Your task to perform on an android device: Open Google Maps and go to "Timeline" Image 0: 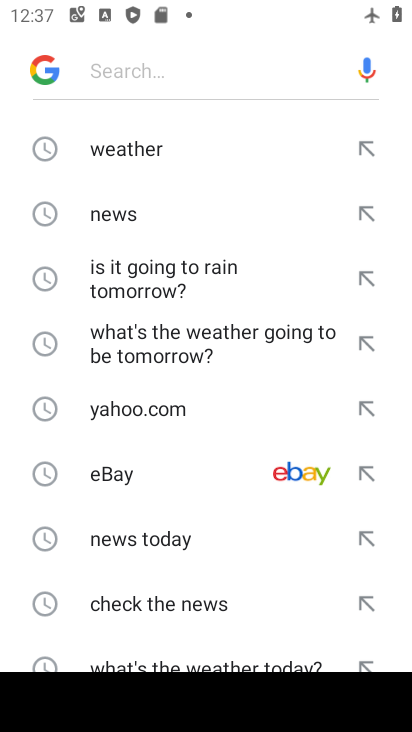
Step 0: press home button
Your task to perform on an android device: Open Google Maps and go to "Timeline" Image 1: 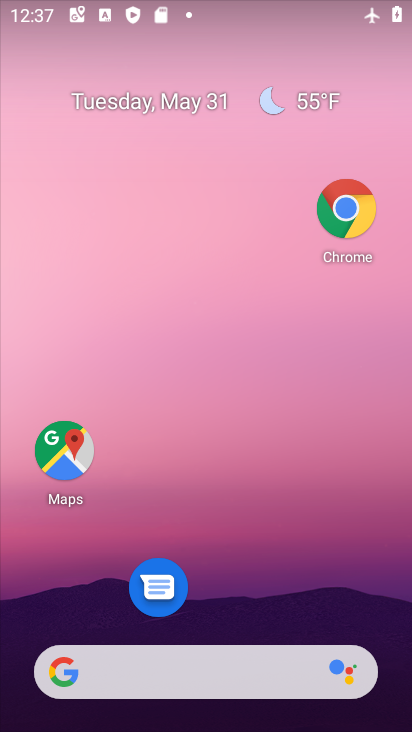
Step 1: click (65, 466)
Your task to perform on an android device: Open Google Maps and go to "Timeline" Image 2: 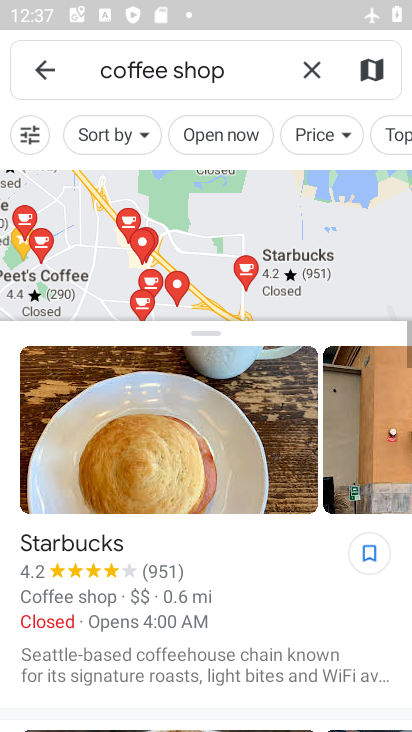
Step 2: click (32, 77)
Your task to perform on an android device: Open Google Maps and go to "Timeline" Image 3: 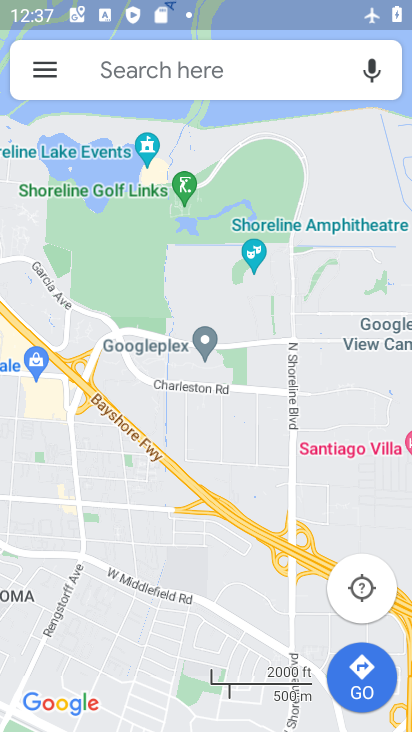
Step 3: click (32, 77)
Your task to perform on an android device: Open Google Maps and go to "Timeline" Image 4: 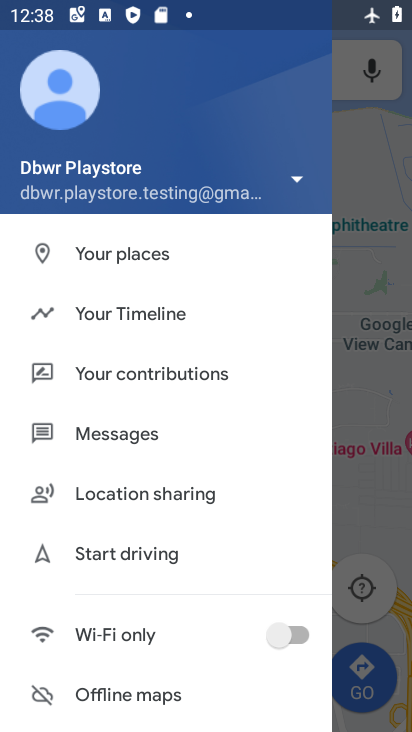
Step 4: click (99, 320)
Your task to perform on an android device: Open Google Maps and go to "Timeline" Image 5: 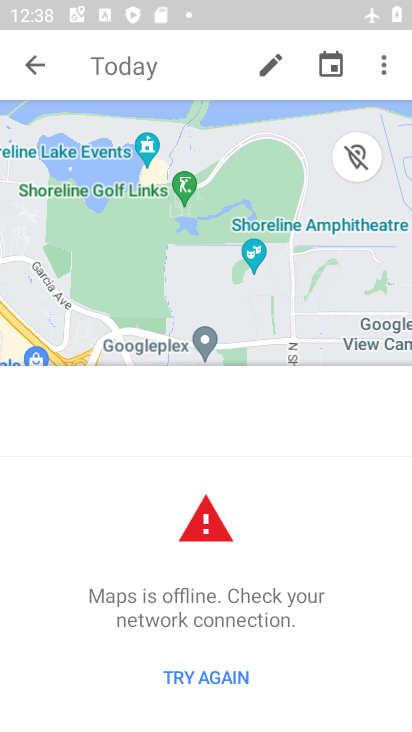
Step 5: drag from (306, 269) to (315, 570)
Your task to perform on an android device: Open Google Maps and go to "Timeline" Image 6: 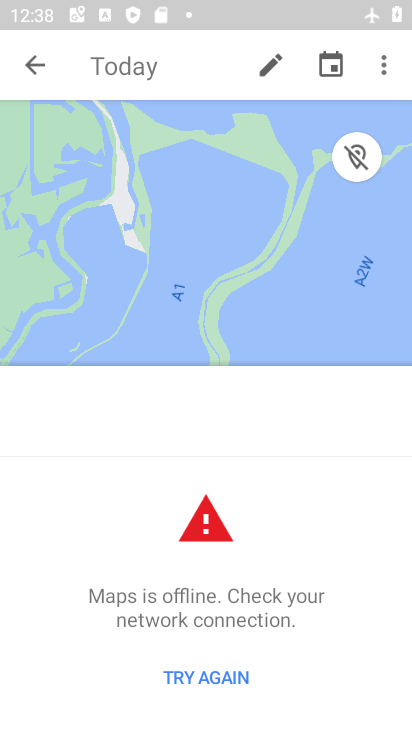
Step 6: drag from (204, 166) to (203, 604)
Your task to perform on an android device: Open Google Maps and go to "Timeline" Image 7: 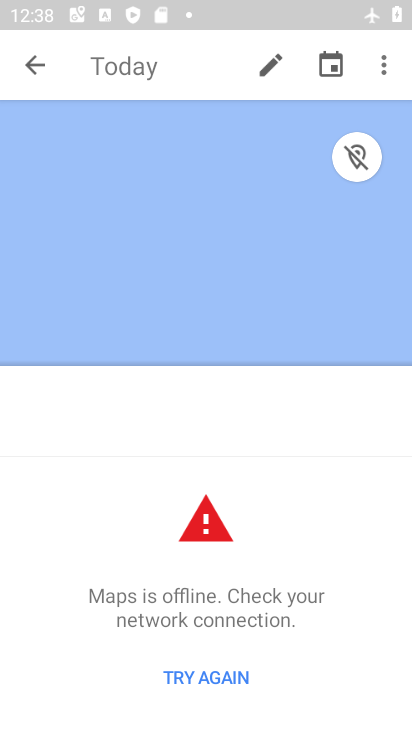
Step 7: drag from (207, 12) to (251, 617)
Your task to perform on an android device: Open Google Maps and go to "Timeline" Image 8: 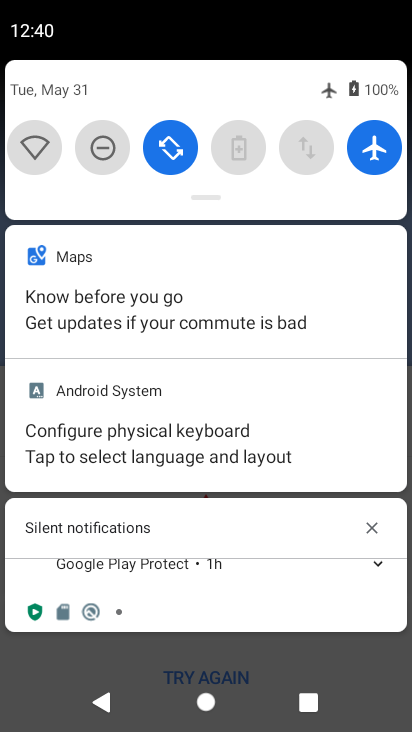
Step 8: press home button
Your task to perform on an android device: Open Google Maps and go to "Timeline" Image 9: 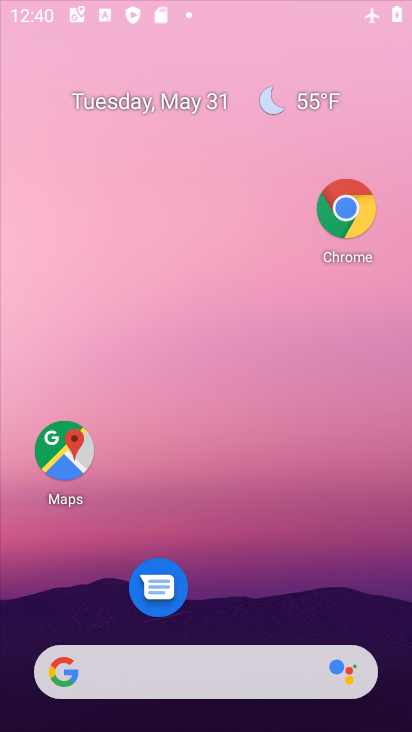
Step 9: press home button
Your task to perform on an android device: Open Google Maps and go to "Timeline" Image 10: 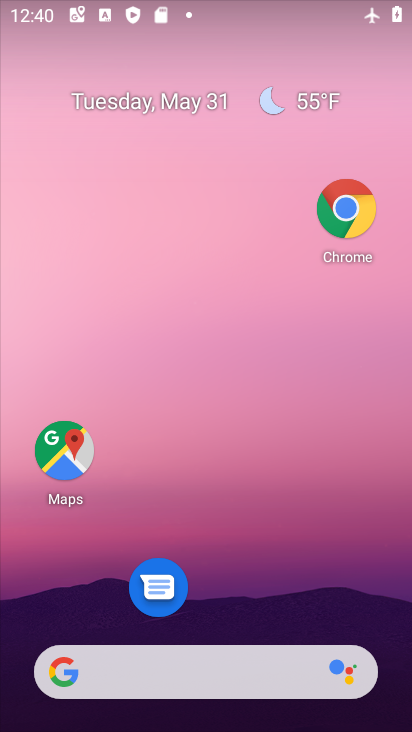
Step 10: press home button
Your task to perform on an android device: Open Google Maps and go to "Timeline" Image 11: 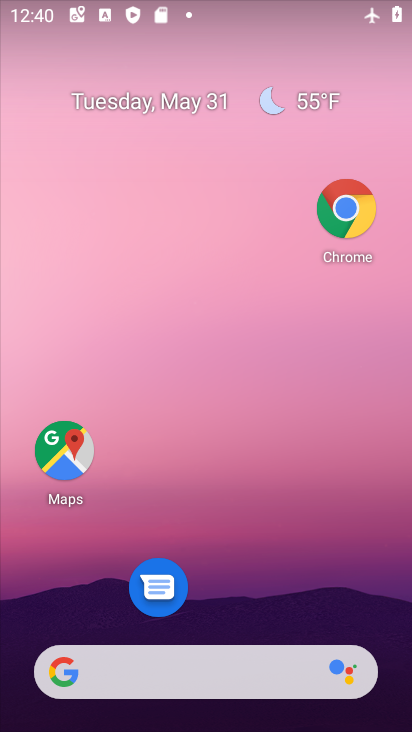
Step 11: click (72, 471)
Your task to perform on an android device: Open Google Maps and go to "Timeline" Image 12: 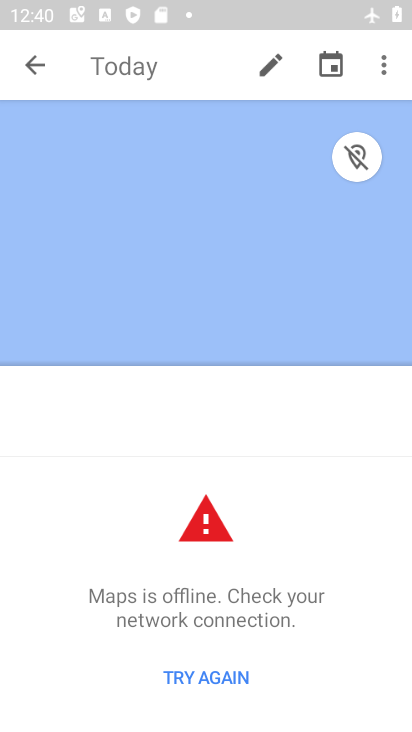
Step 12: drag from (260, 9) to (229, 602)
Your task to perform on an android device: Open Google Maps and go to "Timeline" Image 13: 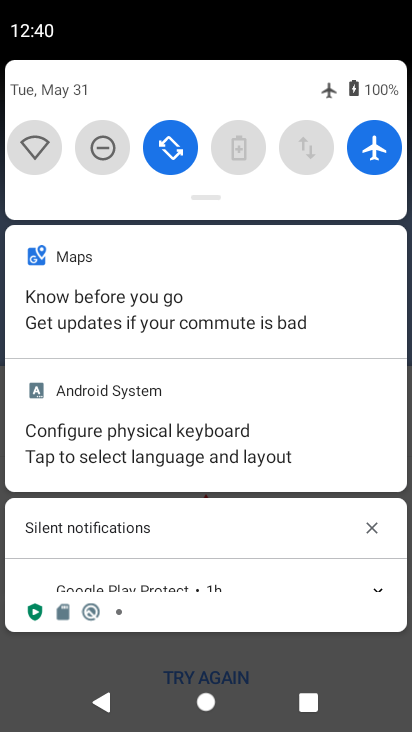
Step 13: click (370, 154)
Your task to perform on an android device: Open Google Maps and go to "Timeline" Image 14: 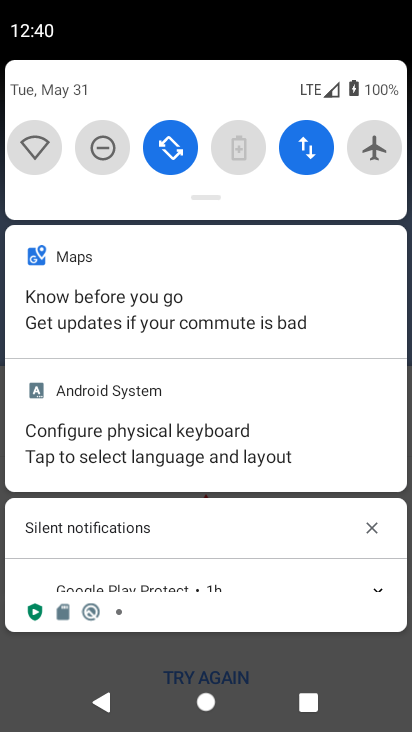
Step 14: task complete